Your task to perform on an android device: Show me productivity apps on the Play Store Image 0: 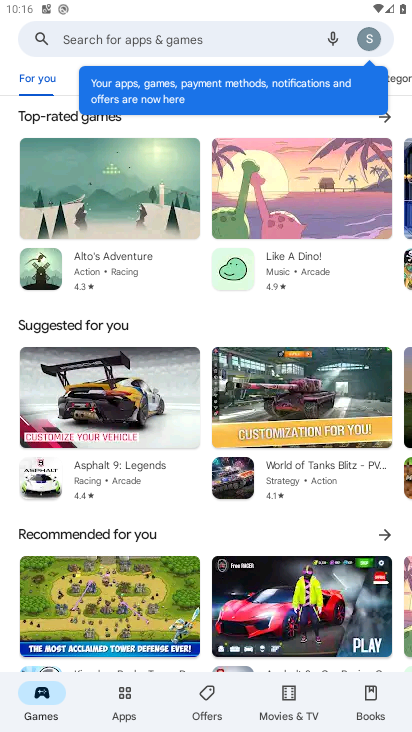
Step 0: press home button
Your task to perform on an android device: Show me productivity apps on the Play Store Image 1: 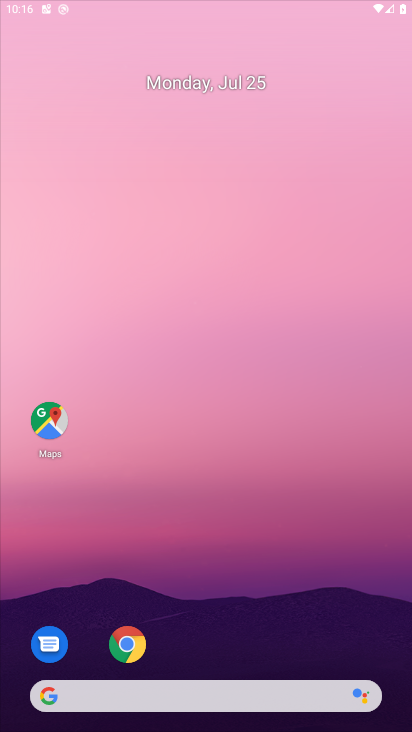
Step 1: drag from (197, 578) to (139, 210)
Your task to perform on an android device: Show me productivity apps on the Play Store Image 2: 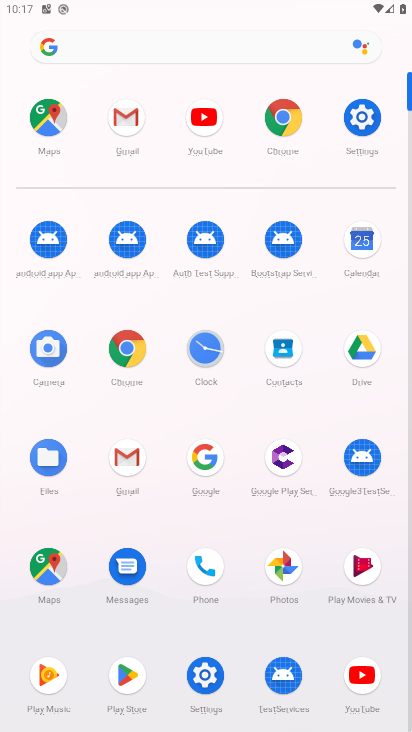
Step 2: click (134, 649)
Your task to perform on an android device: Show me productivity apps on the Play Store Image 3: 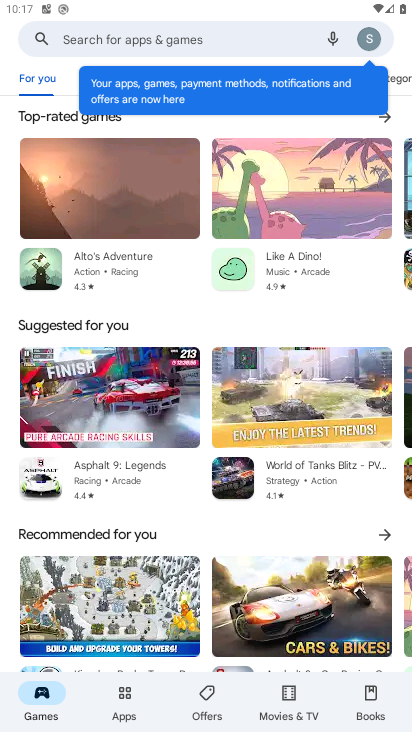
Step 3: click (164, 35)
Your task to perform on an android device: Show me productivity apps on the Play Store Image 4: 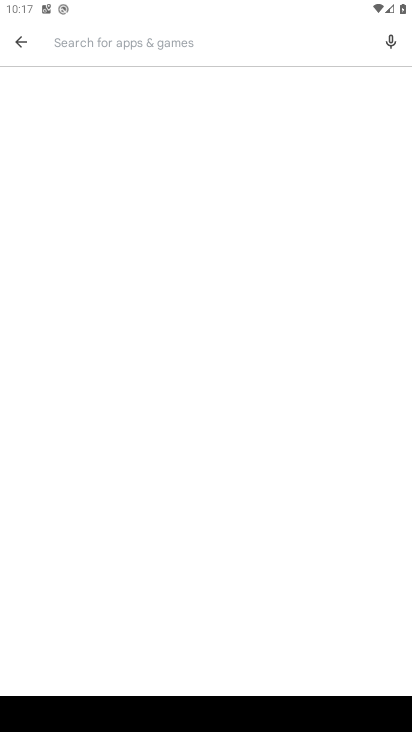
Step 4: type "productivity apps"
Your task to perform on an android device: Show me productivity apps on the Play Store Image 5: 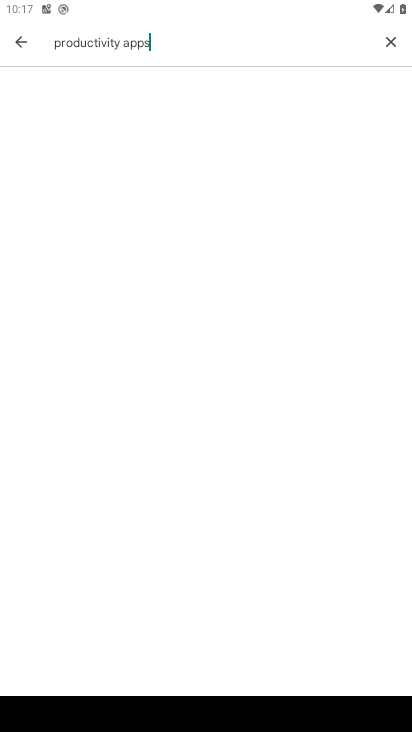
Step 5: type ""
Your task to perform on an android device: Show me productivity apps on the Play Store Image 6: 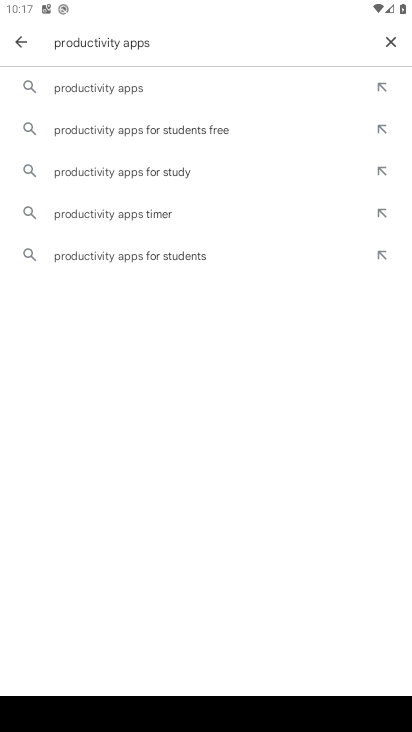
Step 6: click (117, 93)
Your task to perform on an android device: Show me productivity apps on the Play Store Image 7: 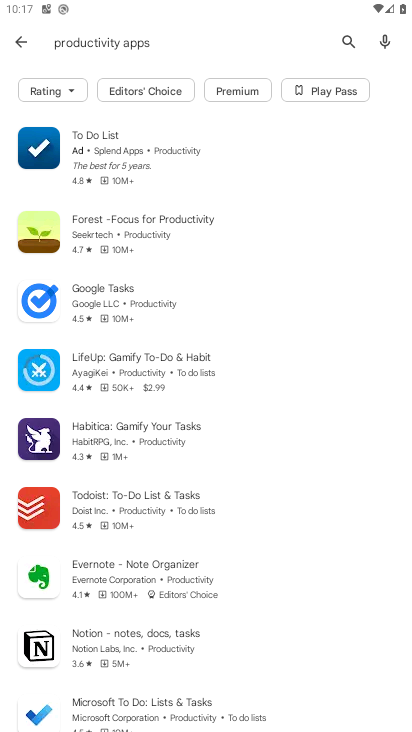
Step 7: task complete